Your task to perform on an android device: see tabs open on other devices in the chrome app Image 0: 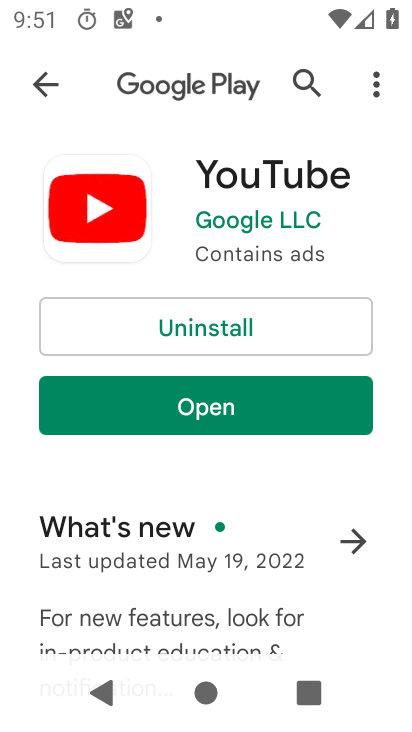
Step 0: press home button
Your task to perform on an android device: see tabs open on other devices in the chrome app Image 1: 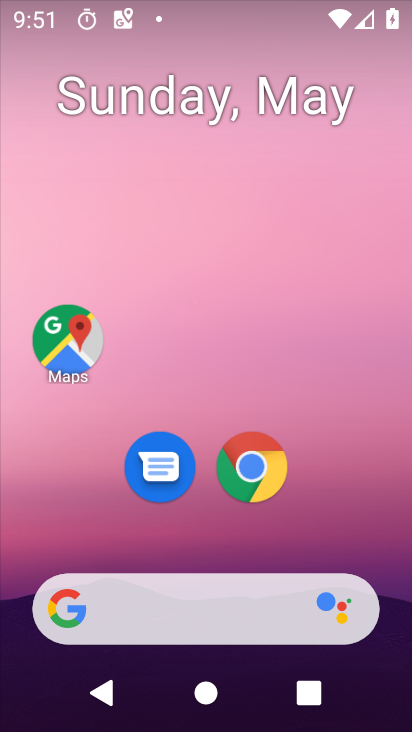
Step 1: click (256, 463)
Your task to perform on an android device: see tabs open on other devices in the chrome app Image 2: 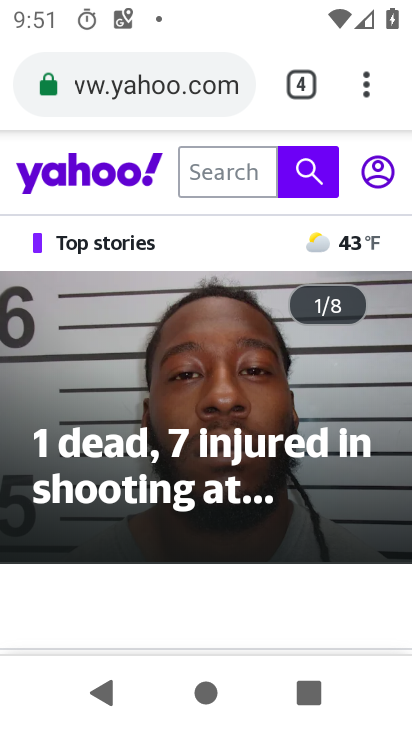
Step 2: task complete